Your task to perform on an android device: Go to settings Image 0: 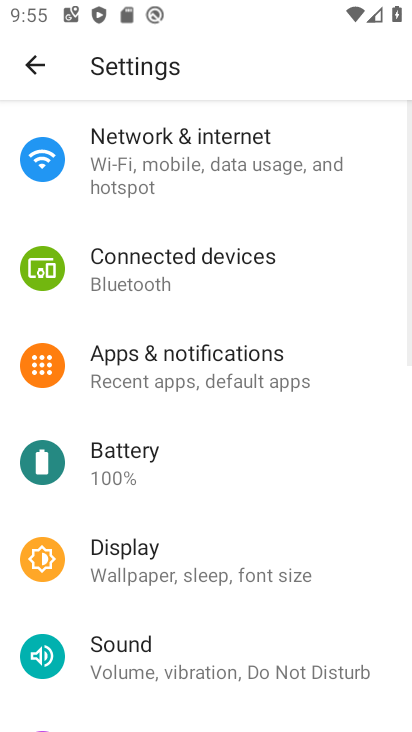
Step 0: task complete